Your task to perform on an android device: Go to CNN.com Image 0: 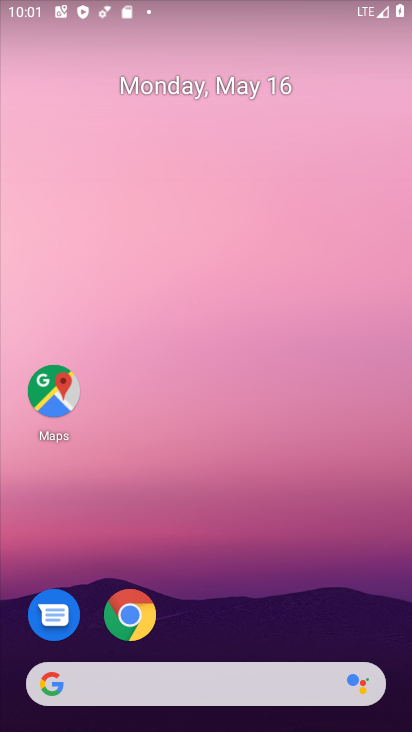
Step 0: drag from (257, 642) to (270, 201)
Your task to perform on an android device: Go to CNN.com Image 1: 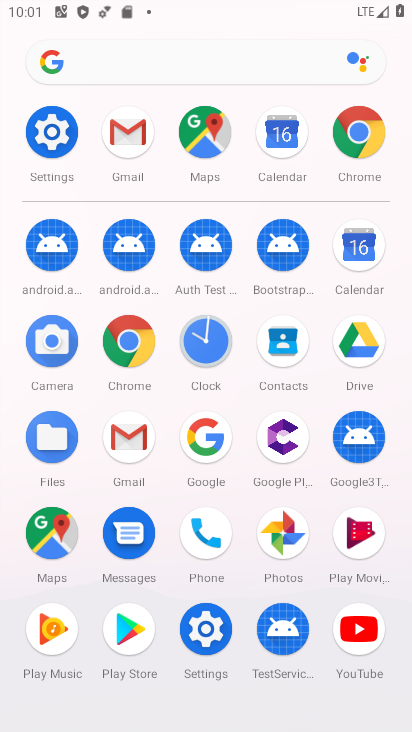
Step 1: click (368, 169)
Your task to perform on an android device: Go to CNN.com Image 2: 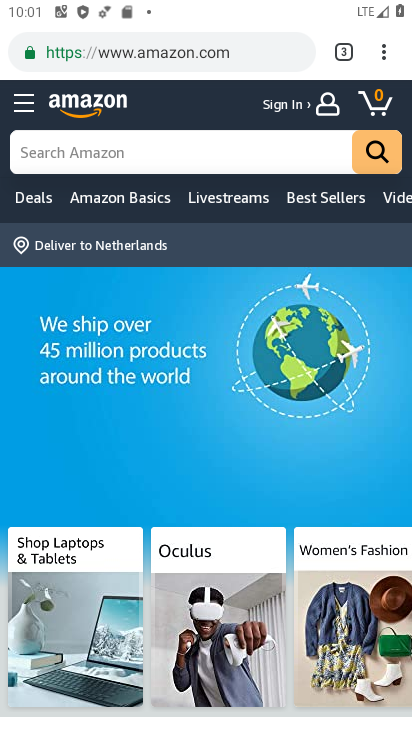
Step 2: click (282, 43)
Your task to perform on an android device: Go to CNN.com Image 3: 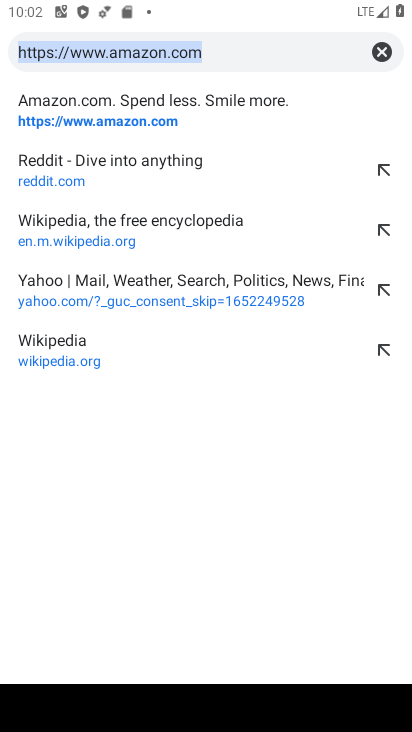
Step 3: type "cnn.com"
Your task to perform on an android device: Go to CNN.com Image 4: 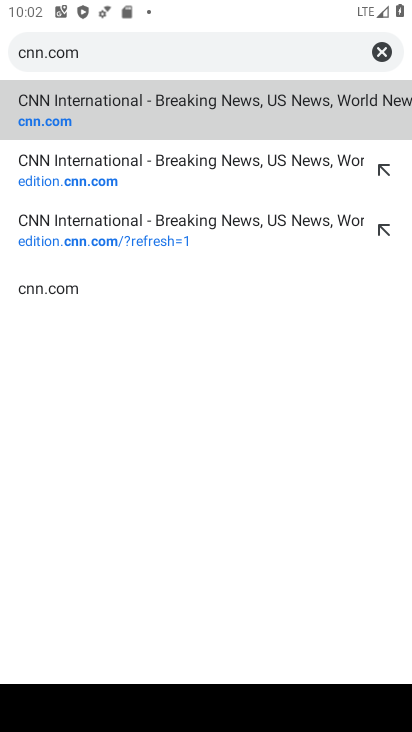
Step 4: click (239, 109)
Your task to perform on an android device: Go to CNN.com Image 5: 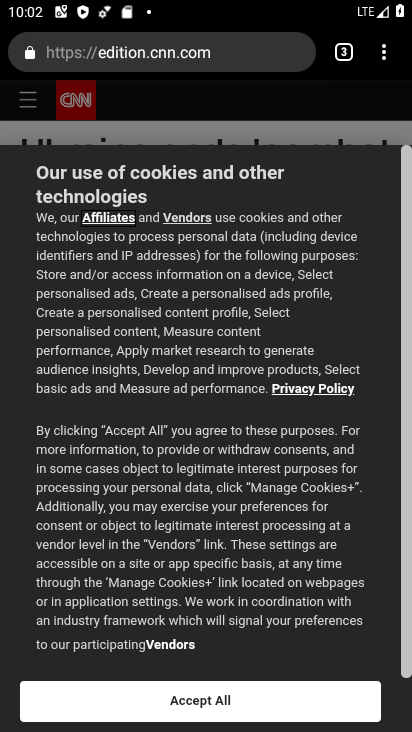
Step 5: task complete